Your task to perform on an android device: check the backup settings in the google photos Image 0: 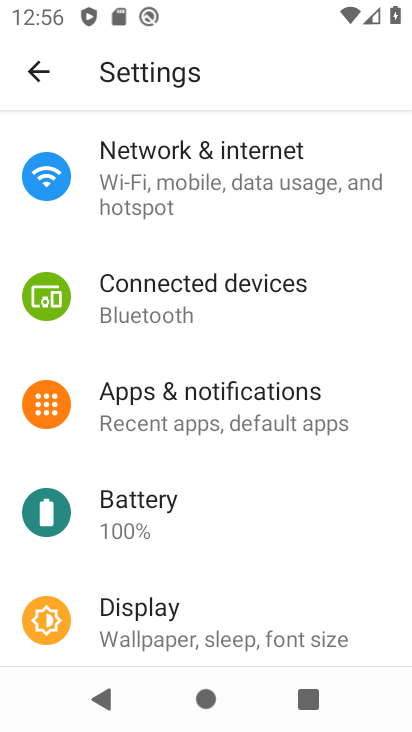
Step 0: drag from (274, 526) to (374, 143)
Your task to perform on an android device: check the backup settings in the google photos Image 1: 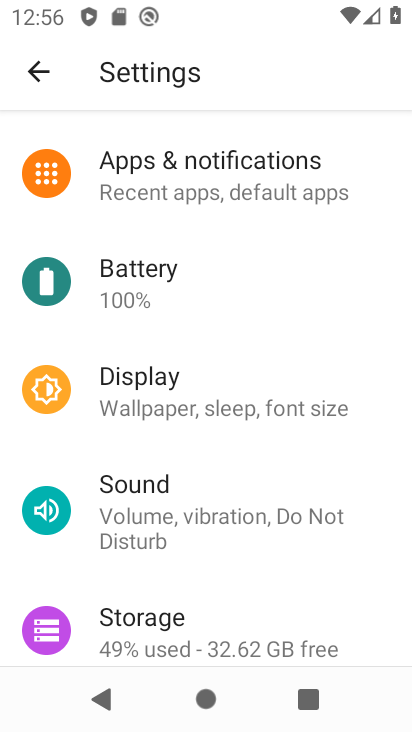
Step 1: press home button
Your task to perform on an android device: check the backup settings in the google photos Image 2: 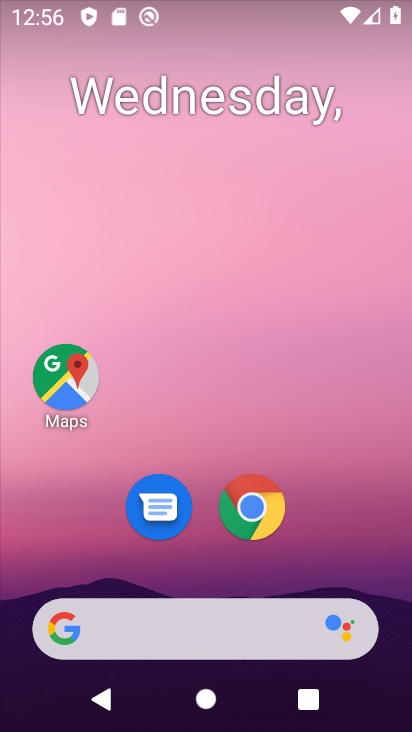
Step 2: drag from (361, 462) to (382, 106)
Your task to perform on an android device: check the backup settings in the google photos Image 3: 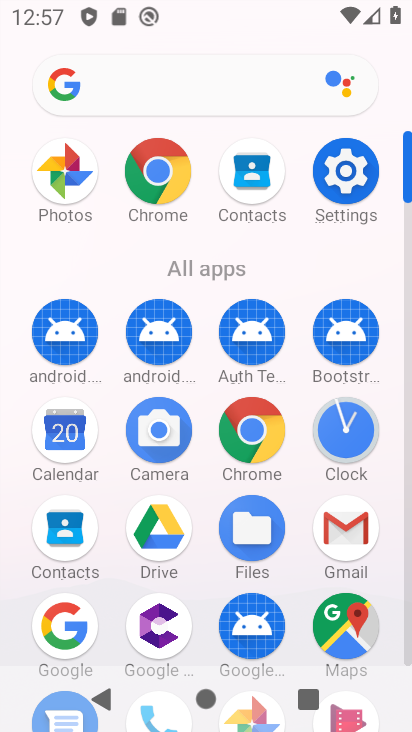
Step 3: click (48, 187)
Your task to perform on an android device: check the backup settings in the google photos Image 4: 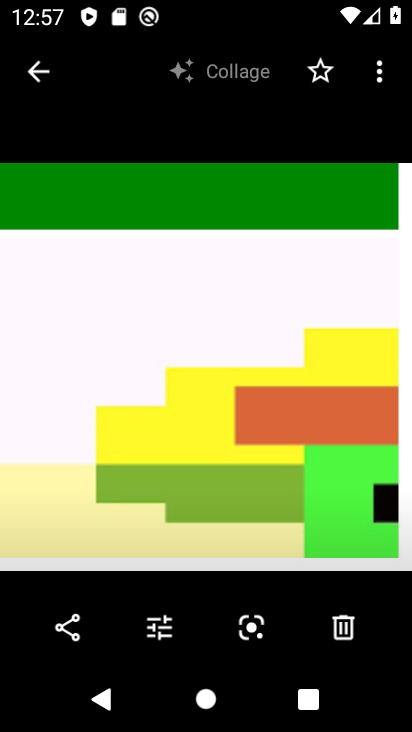
Step 4: click (43, 77)
Your task to perform on an android device: check the backup settings in the google photos Image 5: 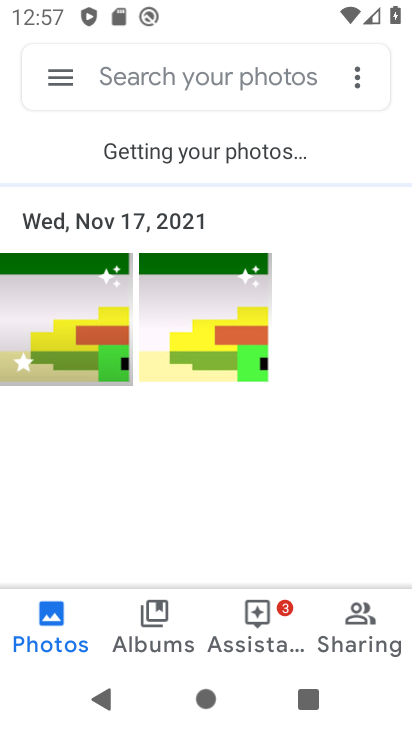
Step 5: click (43, 76)
Your task to perform on an android device: check the backup settings in the google photos Image 6: 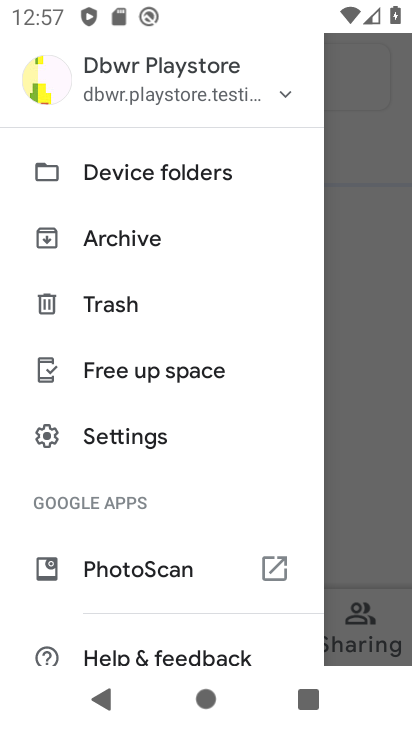
Step 6: drag from (167, 592) to (285, 237)
Your task to perform on an android device: check the backup settings in the google photos Image 7: 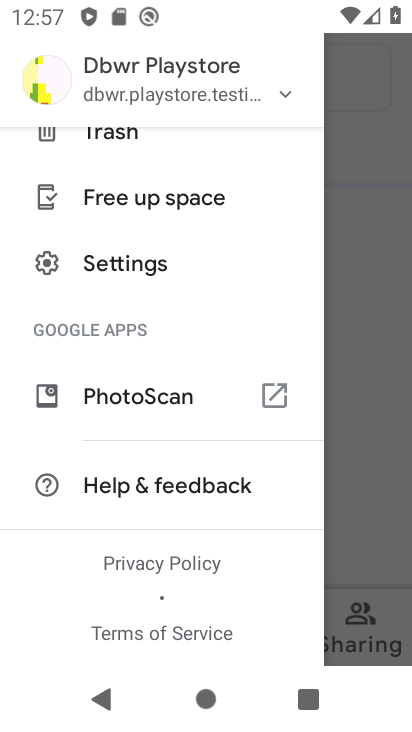
Step 7: click (115, 273)
Your task to perform on an android device: check the backup settings in the google photos Image 8: 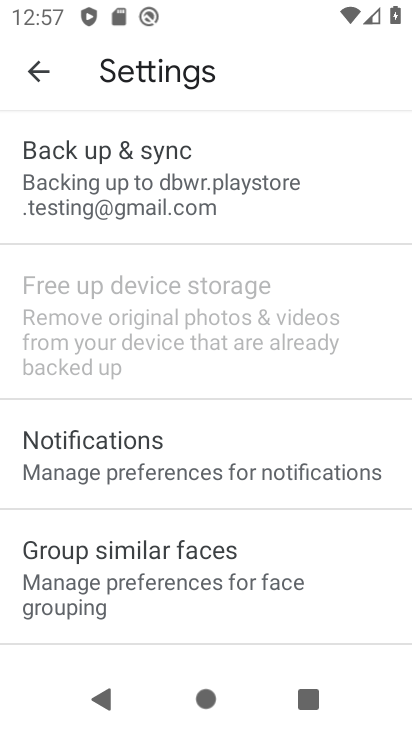
Step 8: click (130, 187)
Your task to perform on an android device: check the backup settings in the google photos Image 9: 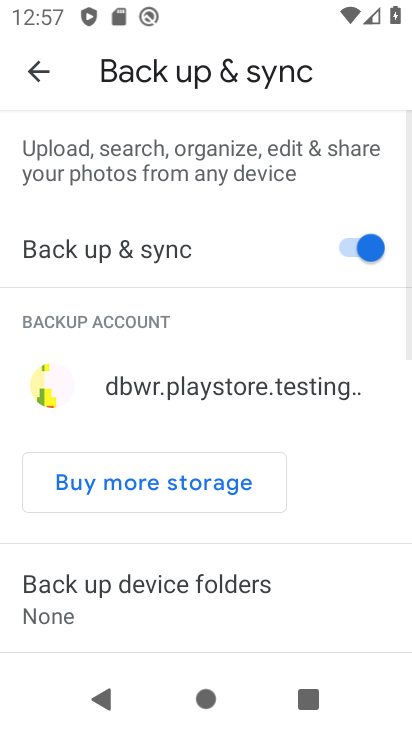
Step 9: task complete